Your task to perform on an android device: turn off translation in the chrome app Image 0: 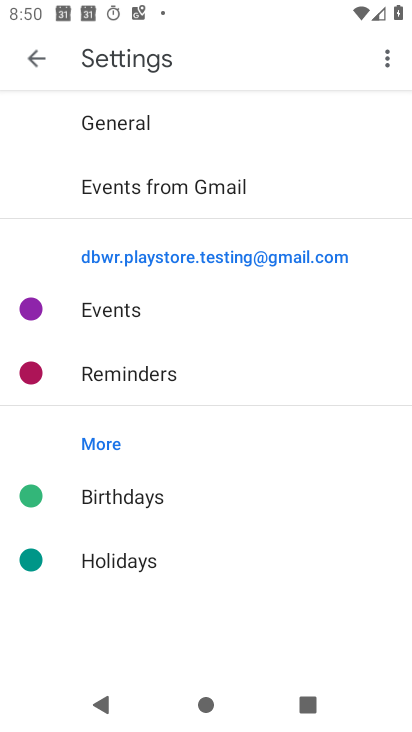
Step 0: press home button
Your task to perform on an android device: turn off translation in the chrome app Image 1: 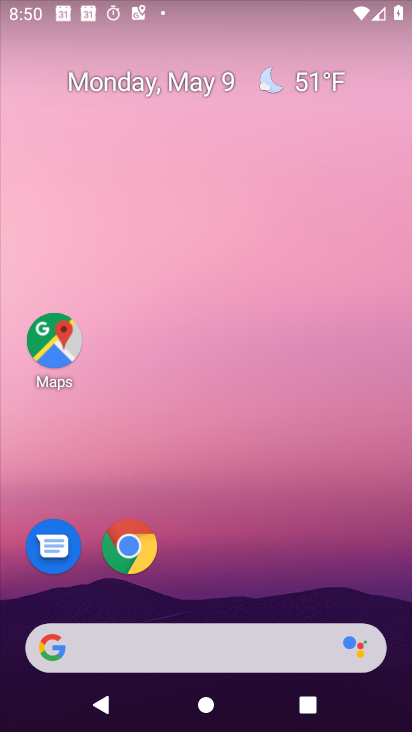
Step 1: click (136, 548)
Your task to perform on an android device: turn off translation in the chrome app Image 2: 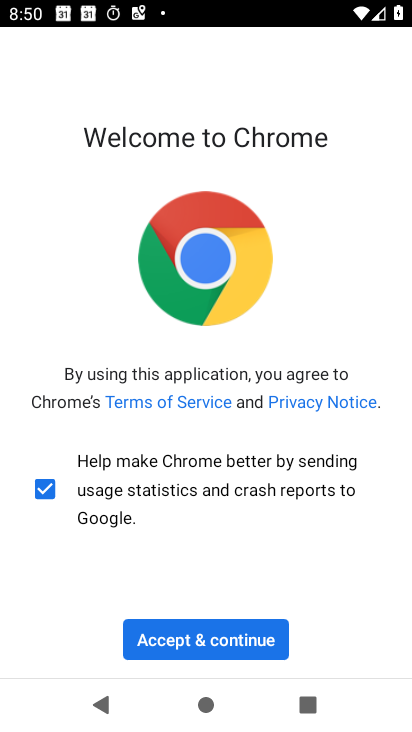
Step 2: click (216, 641)
Your task to perform on an android device: turn off translation in the chrome app Image 3: 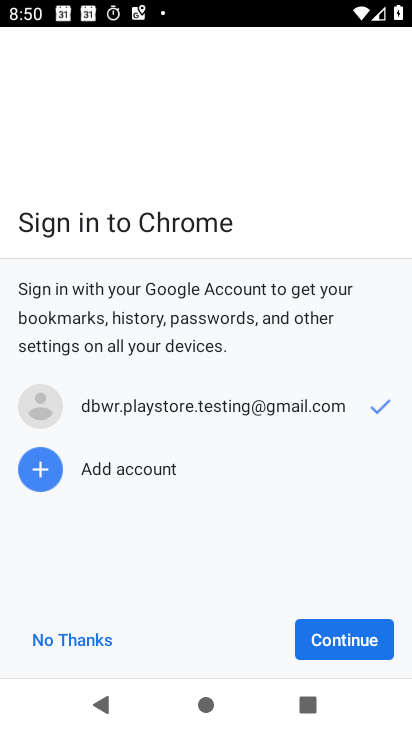
Step 3: click (339, 638)
Your task to perform on an android device: turn off translation in the chrome app Image 4: 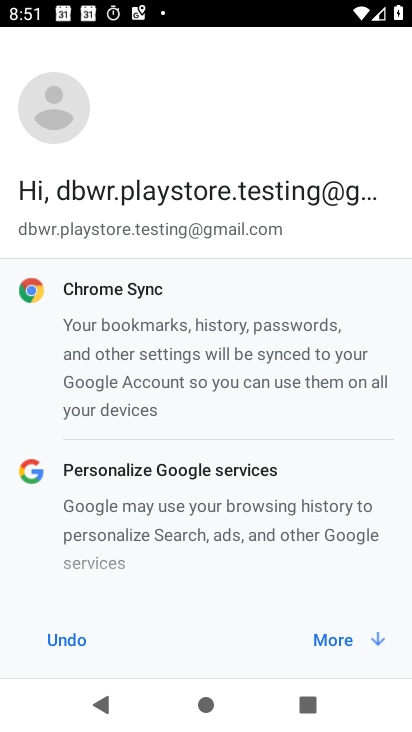
Step 4: click (339, 638)
Your task to perform on an android device: turn off translation in the chrome app Image 5: 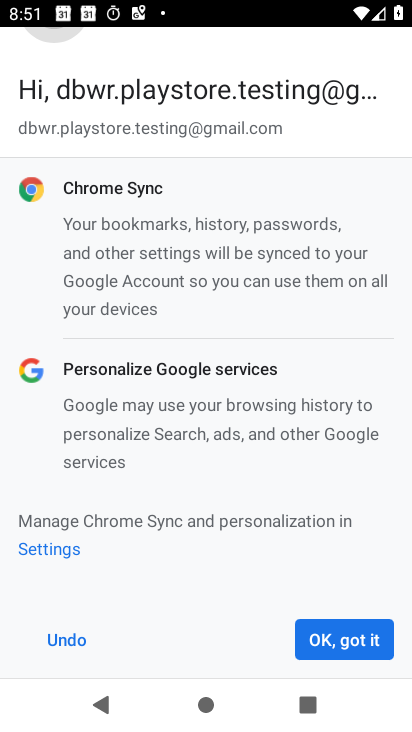
Step 5: click (339, 638)
Your task to perform on an android device: turn off translation in the chrome app Image 6: 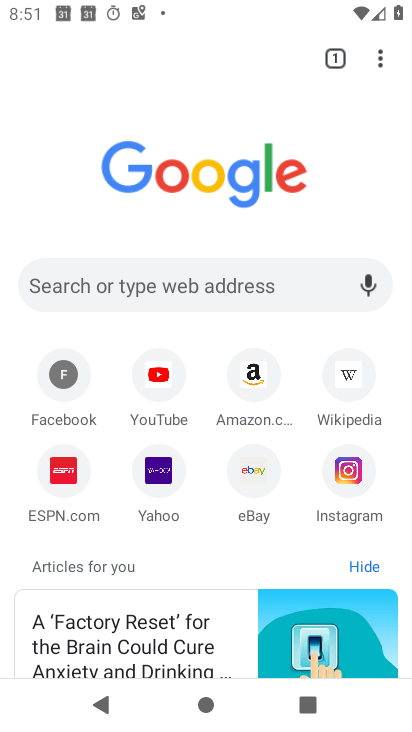
Step 6: drag from (379, 58) to (183, 490)
Your task to perform on an android device: turn off translation in the chrome app Image 7: 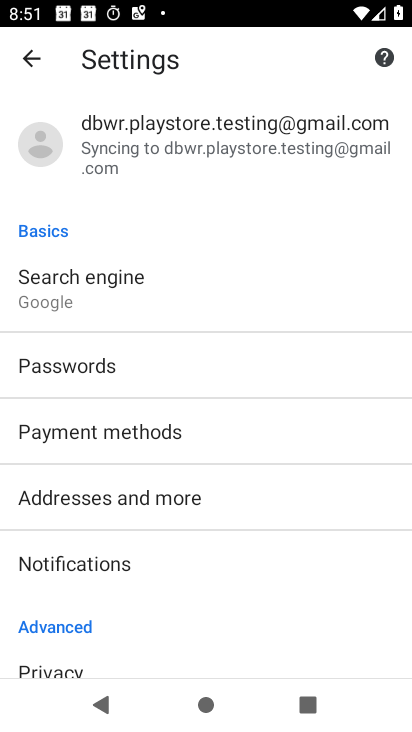
Step 7: drag from (218, 631) to (253, 255)
Your task to perform on an android device: turn off translation in the chrome app Image 8: 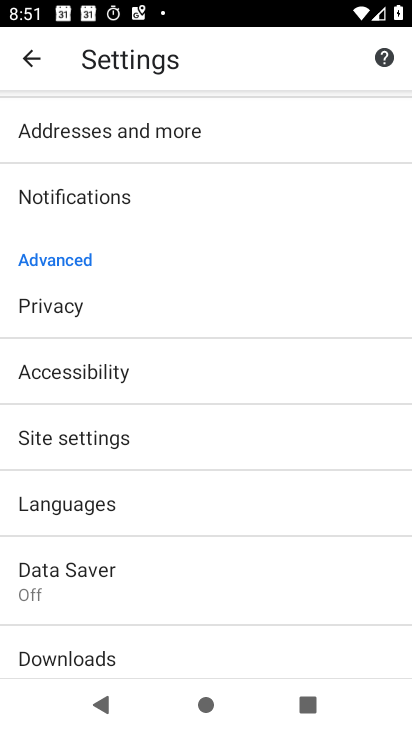
Step 8: click (77, 498)
Your task to perform on an android device: turn off translation in the chrome app Image 9: 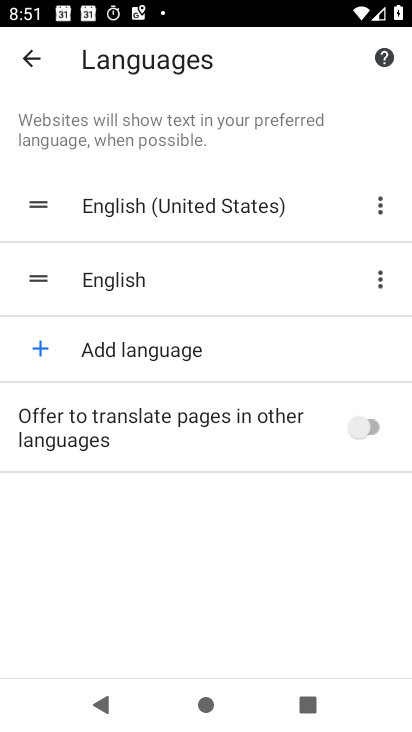
Step 9: task complete